Your task to perform on an android device: set default search engine in the chrome app Image 0: 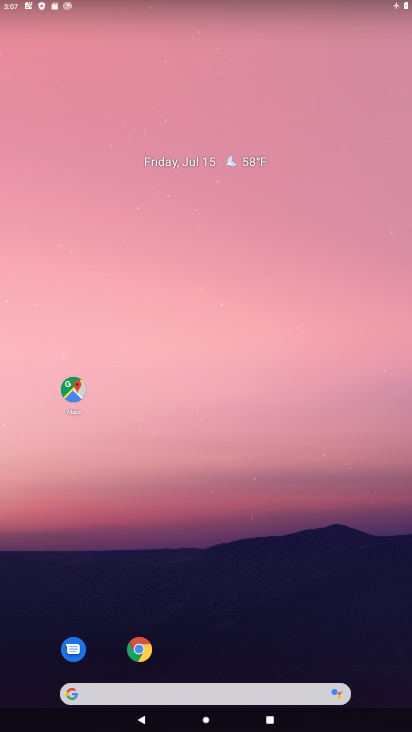
Step 0: click (136, 648)
Your task to perform on an android device: set default search engine in the chrome app Image 1: 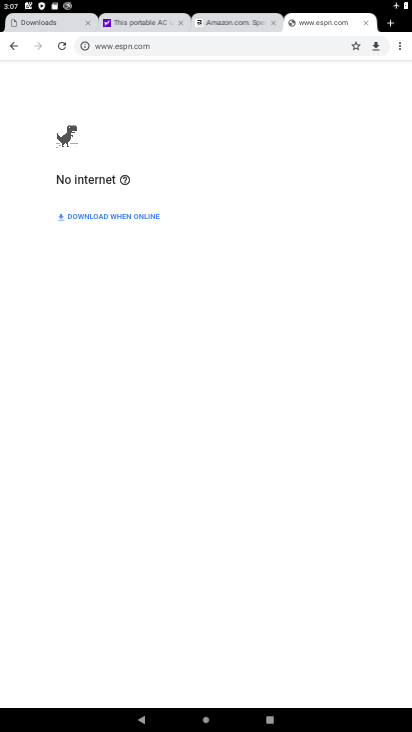
Step 1: click (398, 47)
Your task to perform on an android device: set default search engine in the chrome app Image 2: 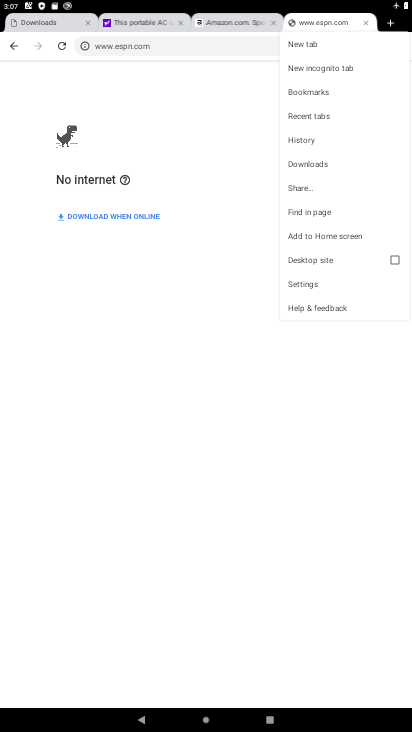
Step 2: click (306, 285)
Your task to perform on an android device: set default search engine in the chrome app Image 3: 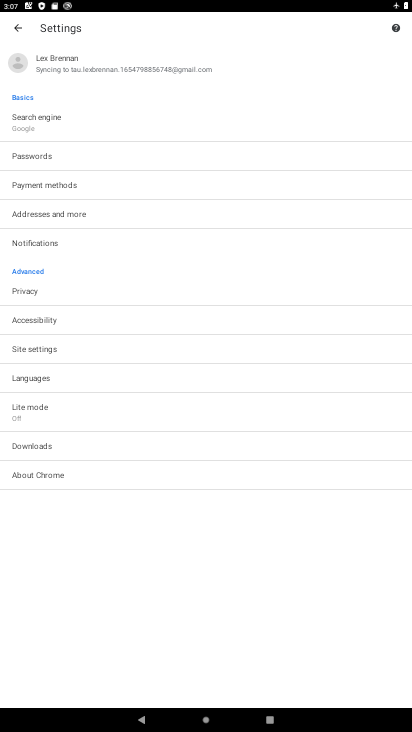
Step 3: click (25, 120)
Your task to perform on an android device: set default search engine in the chrome app Image 4: 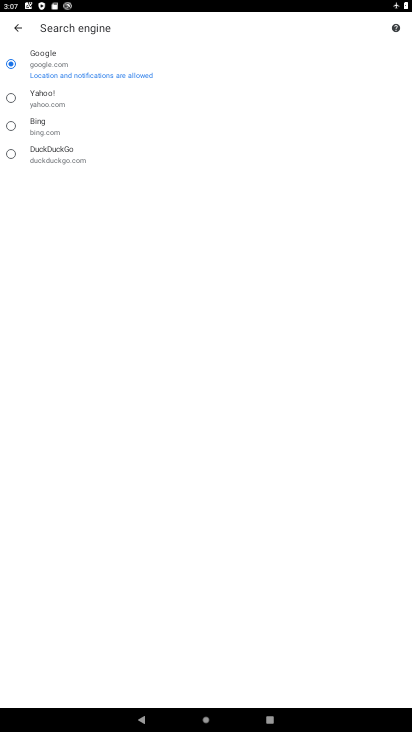
Step 4: click (10, 126)
Your task to perform on an android device: set default search engine in the chrome app Image 5: 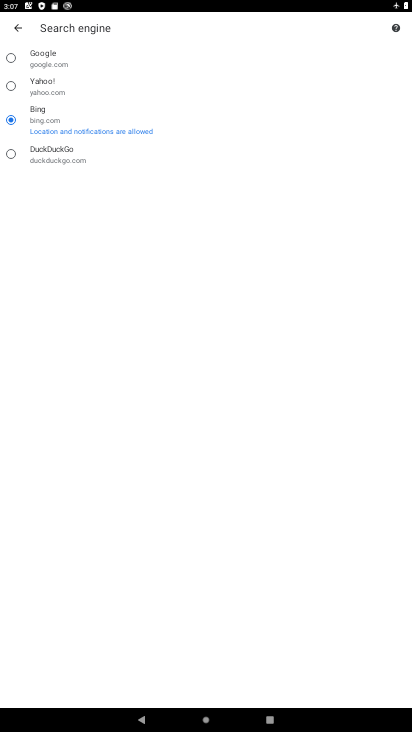
Step 5: task complete